Your task to perform on an android device: Toggle the flashlight Image 0: 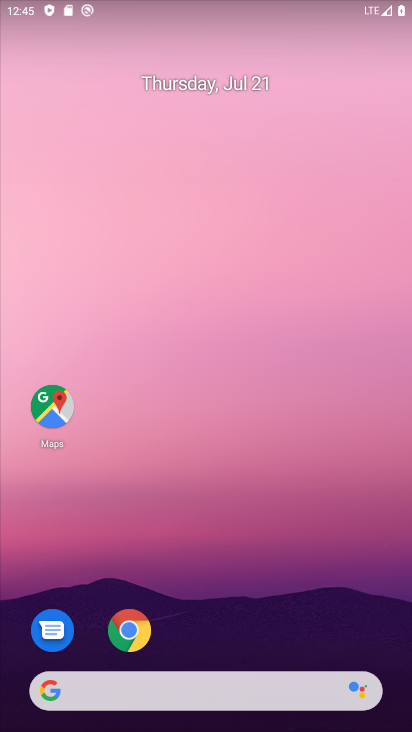
Step 0: drag from (158, 655) to (144, 106)
Your task to perform on an android device: Toggle the flashlight Image 1: 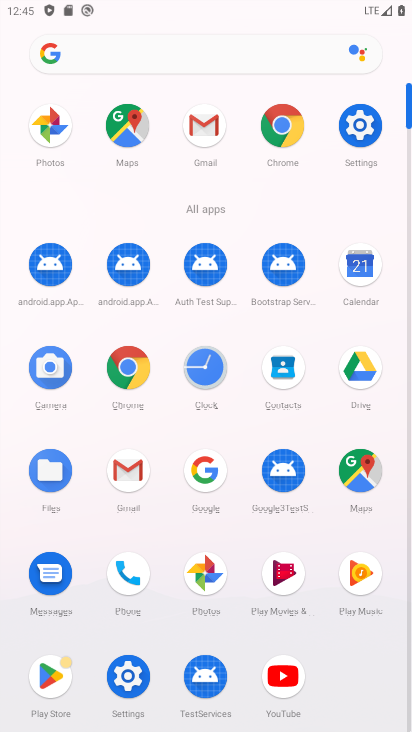
Step 1: click (364, 107)
Your task to perform on an android device: Toggle the flashlight Image 2: 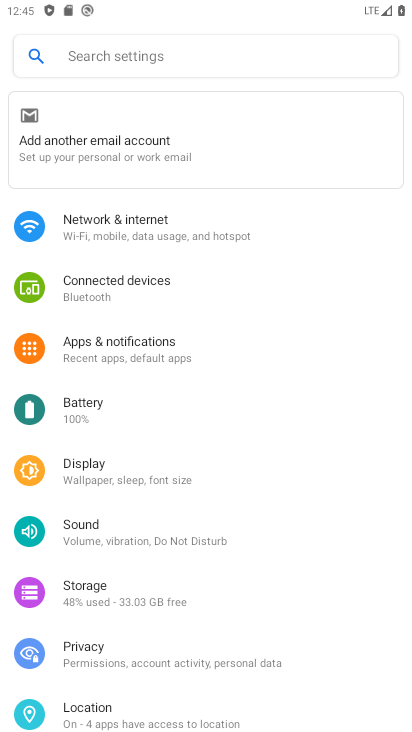
Step 2: task complete